Your task to perform on an android device: Search for razer deathadder on ebay.com, select the first entry, and add it to the cart. Image 0: 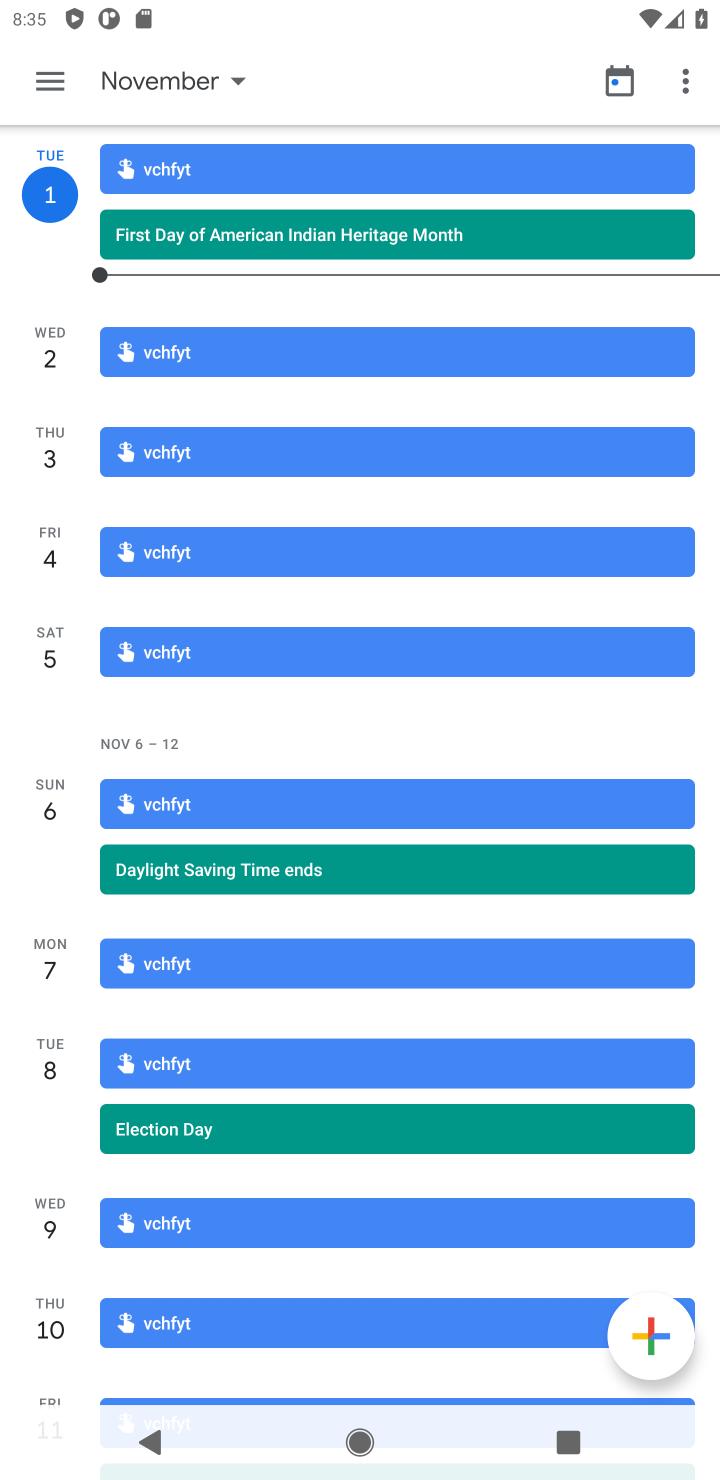
Step 0: press home button
Your task to perform on an android device: Search for razer deathadder on ebay.com, select the first entry, and add it to the cart. Image 1: 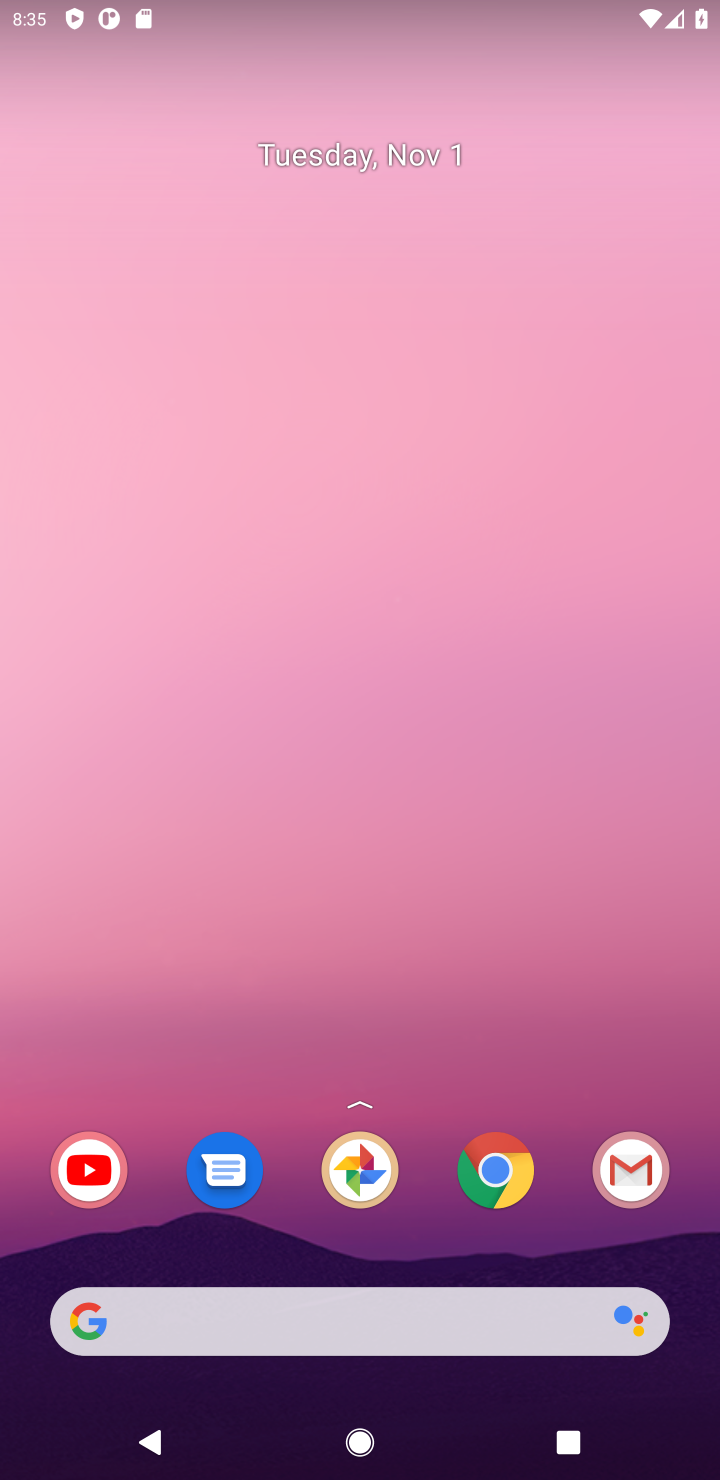
Step 1: click (483, 1183)
Your task to perform on an android device: Search for razer deathadder on ebay.com, select the first entry, and add it to the cart. Image 2: 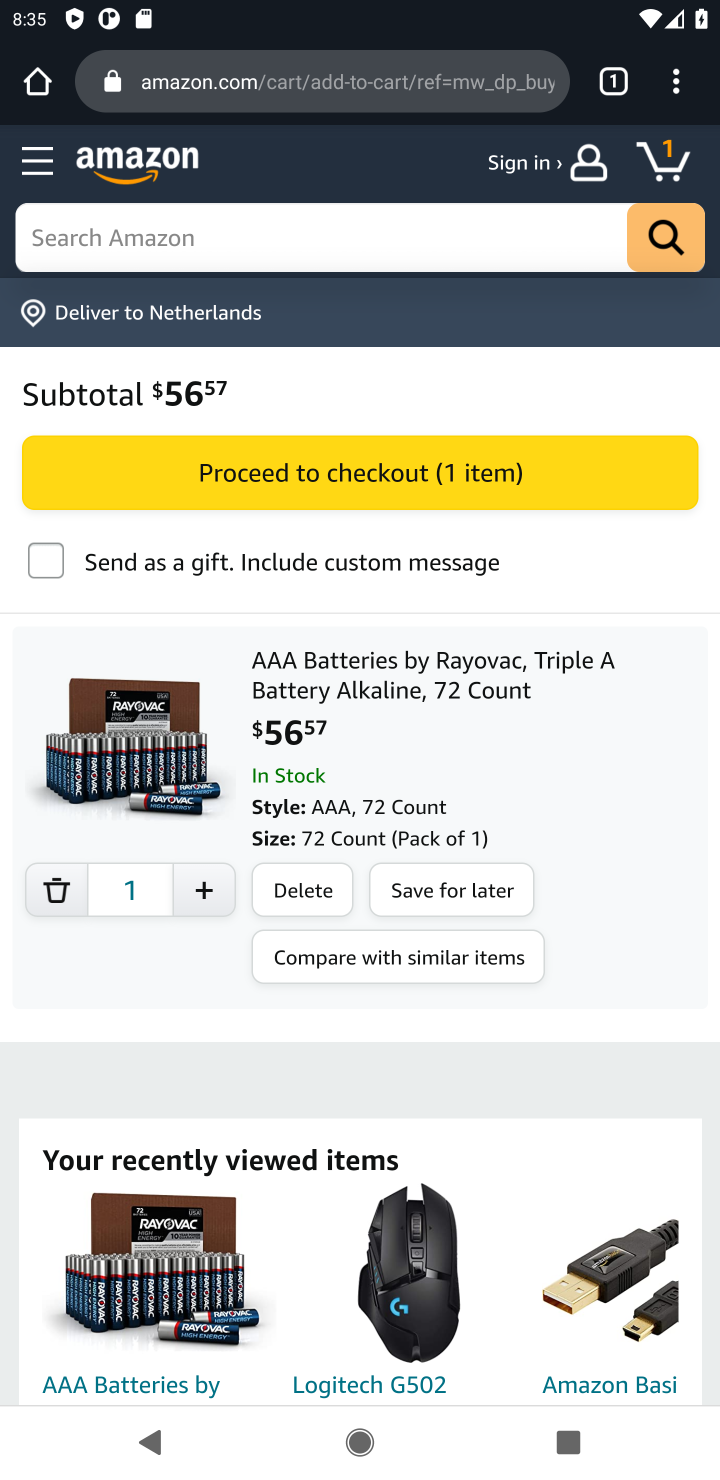
Step 2: click (342, 89)
Your task to perform on an android device: Search for razer deathadder on ebay.com, select the first entry, and add it to the cart. Image 3: 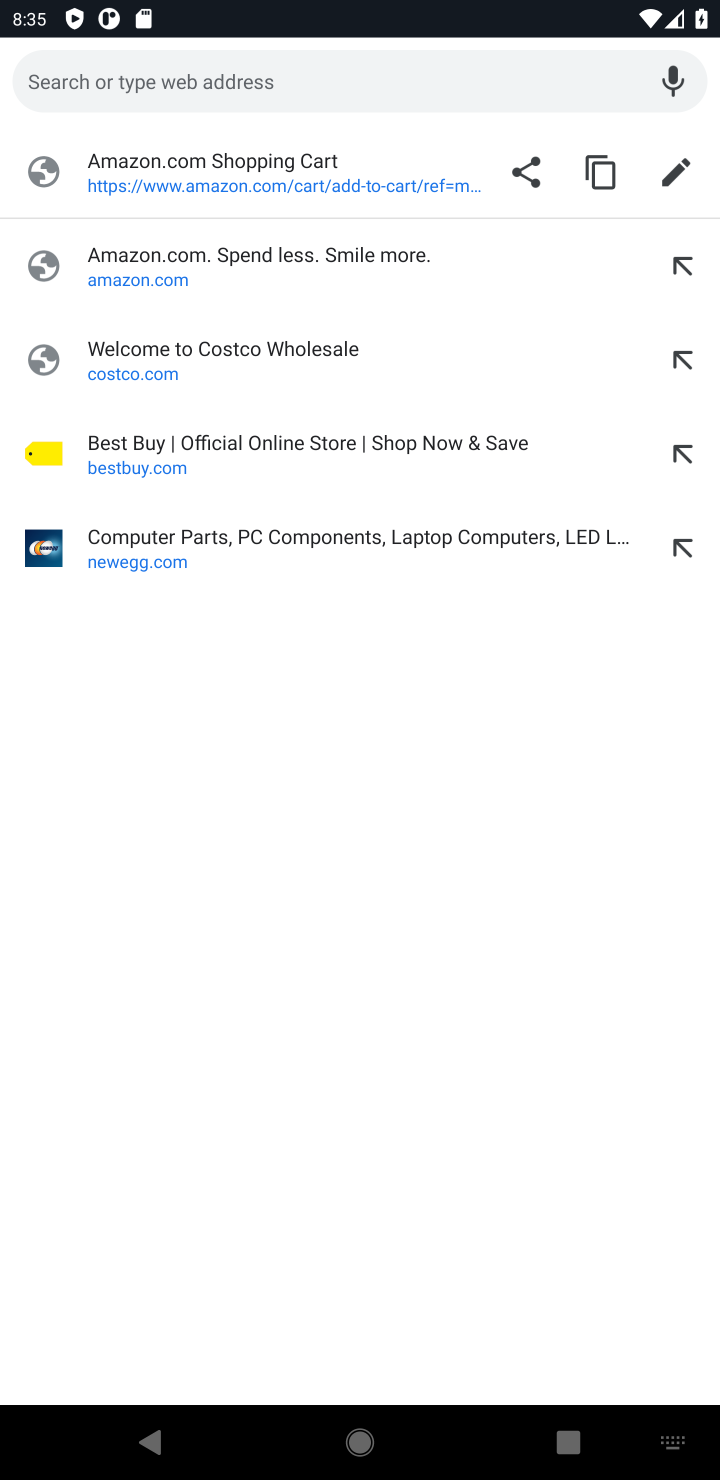
Step 3: type "ebay.com"
Your task to perform on an android device: Search for razer deathadder on ebay.com, select the first entry, and add it to the cart. Image 4: 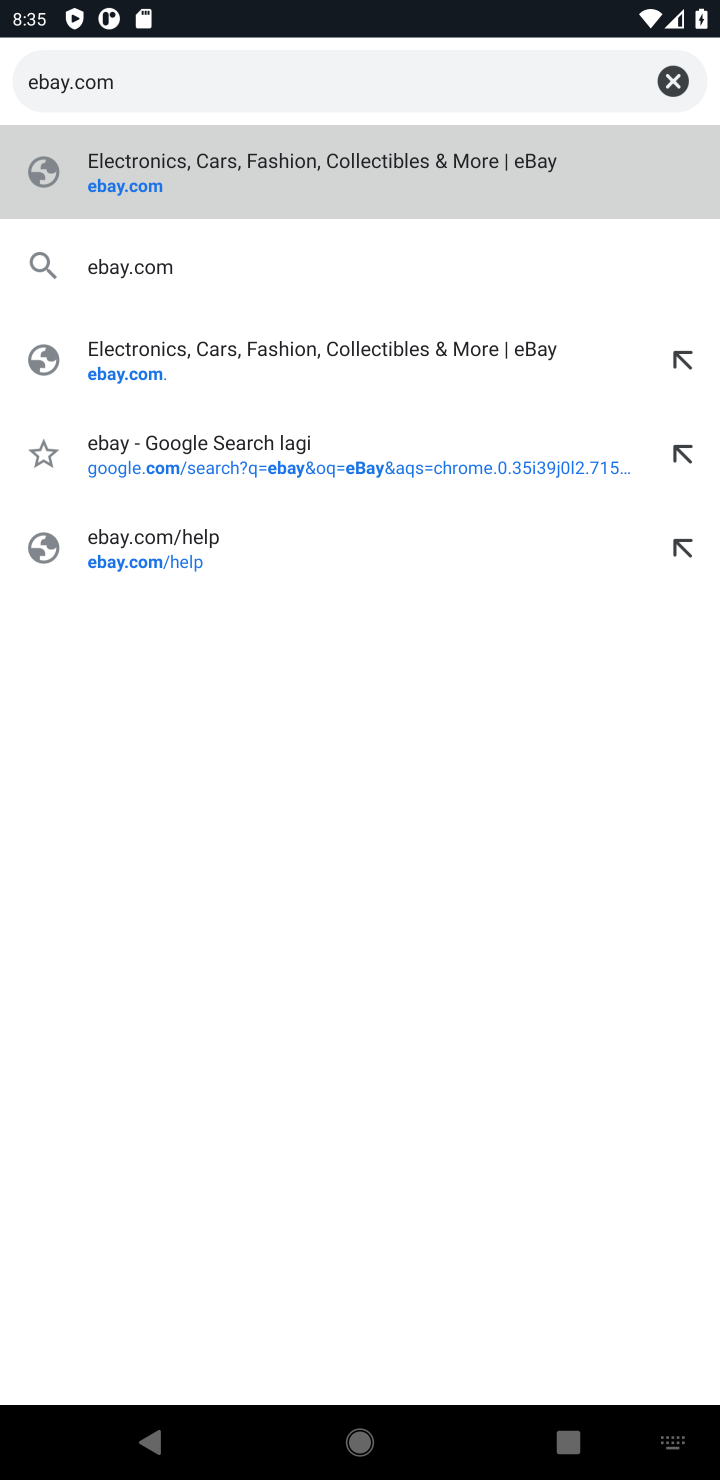
Step 4: type ""
Your task to perform on an android device: Search for razer deathadder on ebay.com, select the first entry, and add it to the cart. Image 5: 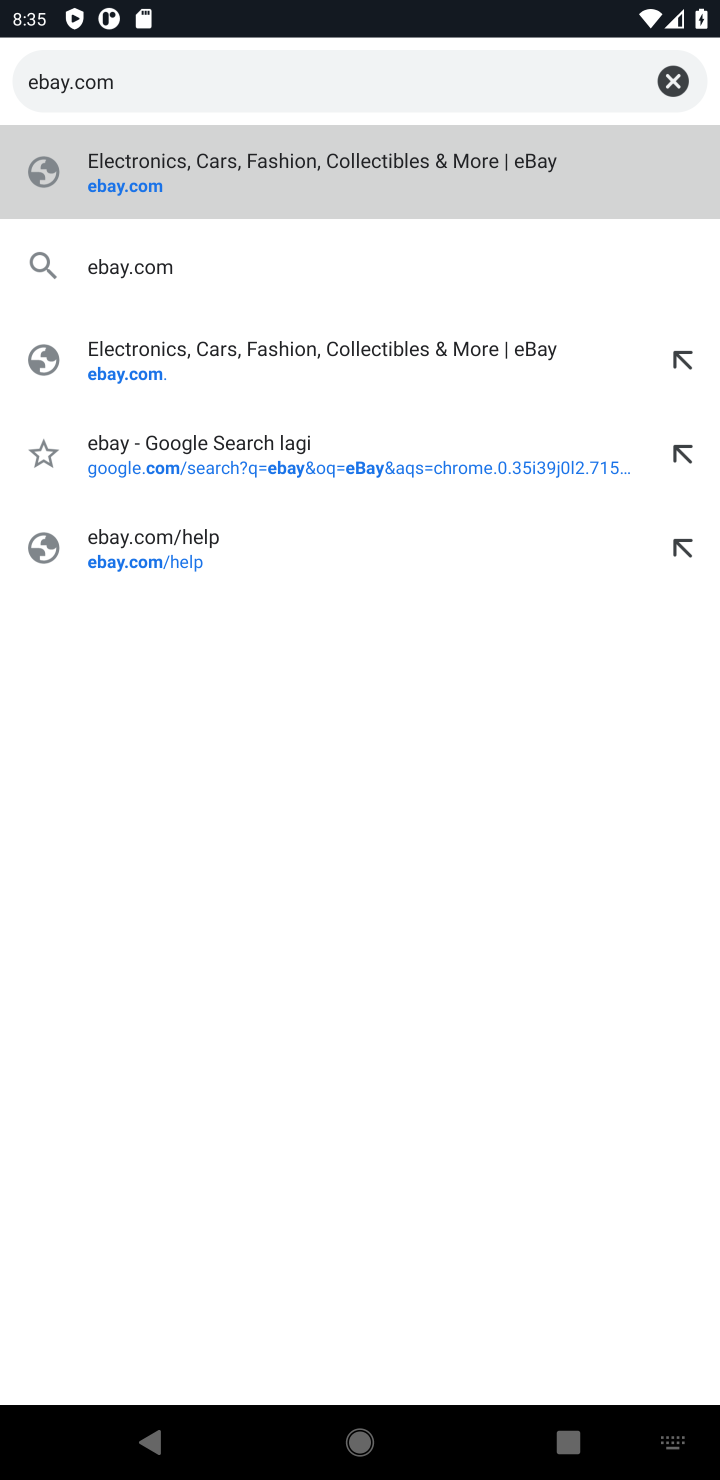
Step 5: press enter
Your task to perform on an android device: Search for razer deathadder on ebay.com, select the first entry, and add it to the cart. Image 6: 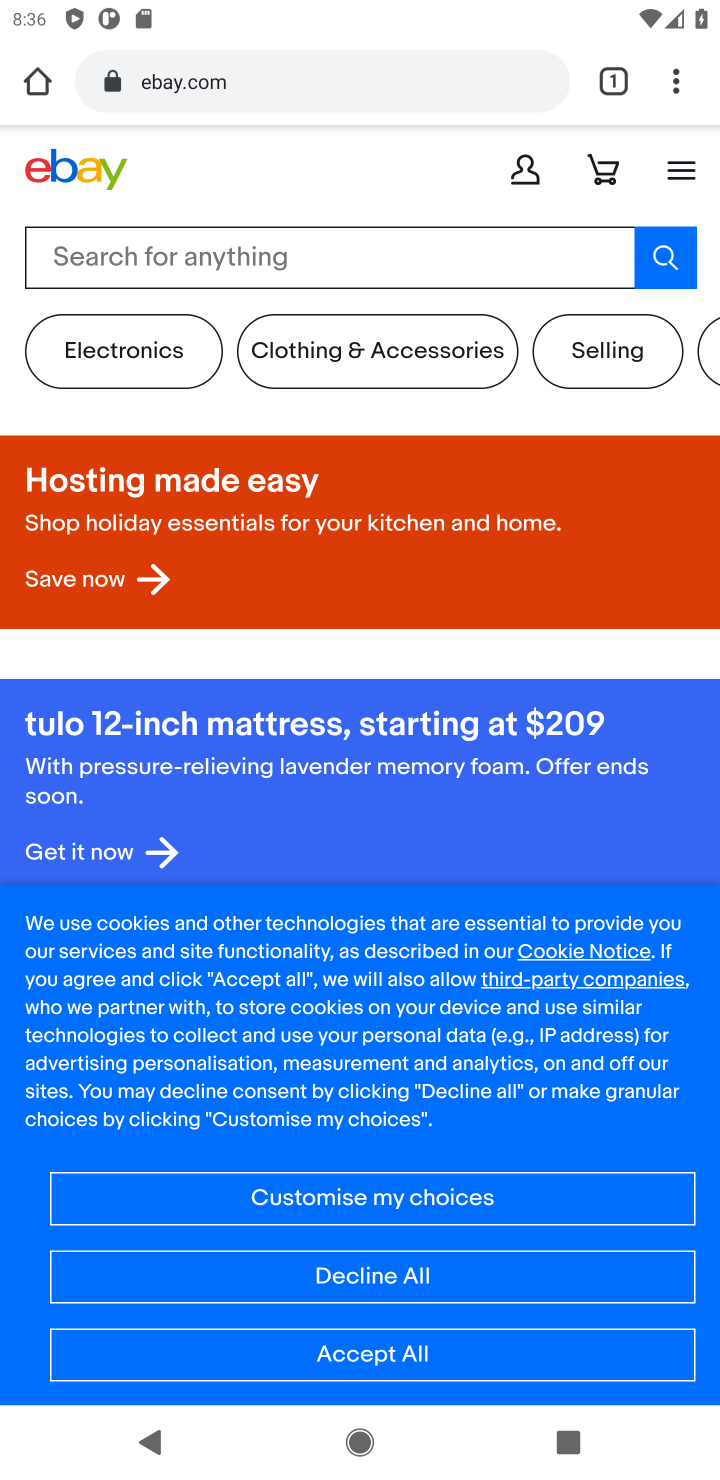
Step 6: click (445, 267)
Your task to perform on an android device: Search for razer deathadder on ebay.com, select the first entry, and add it to the cart. Image 7: 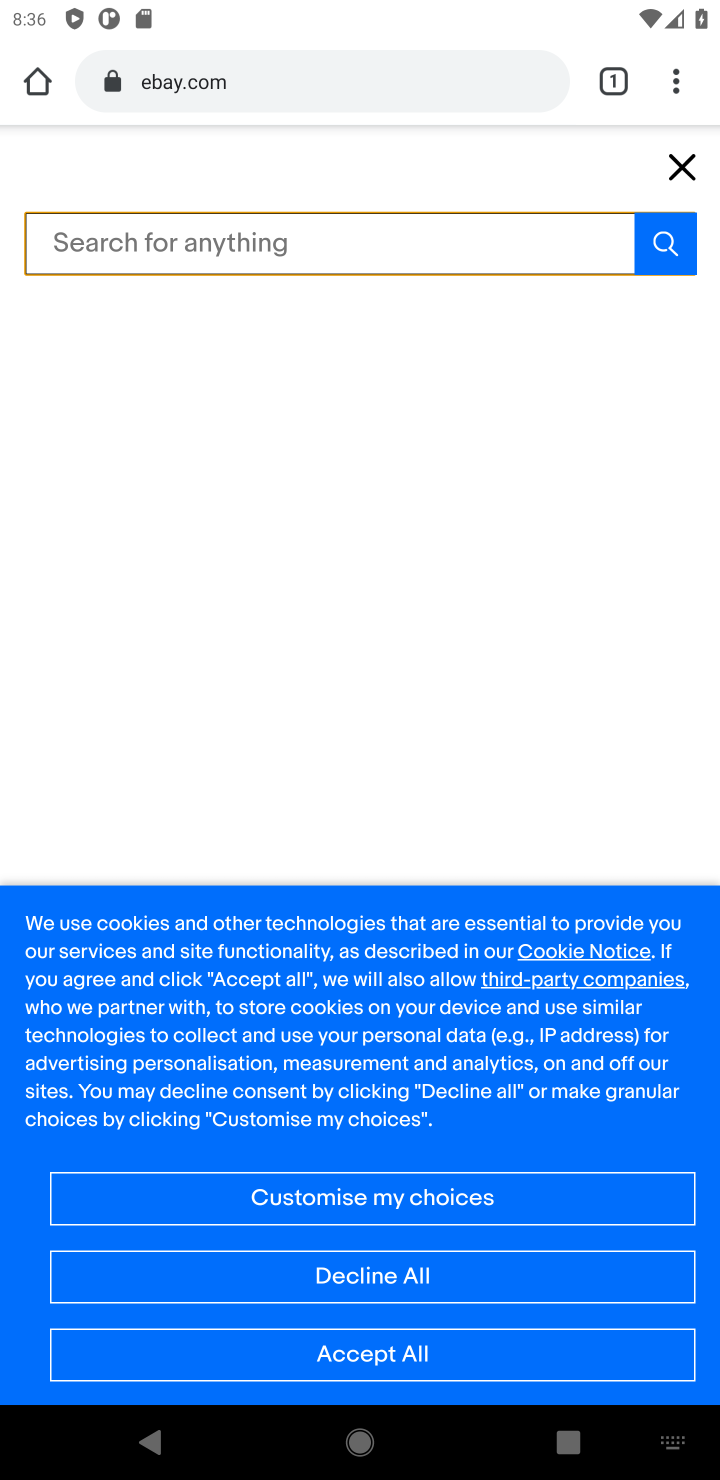
Step 7: type "razer deathadder"
Your task to perform on an android device: Search for razer deathadder on ebay.com, select the first entry, and add it to the cart. Image 8: 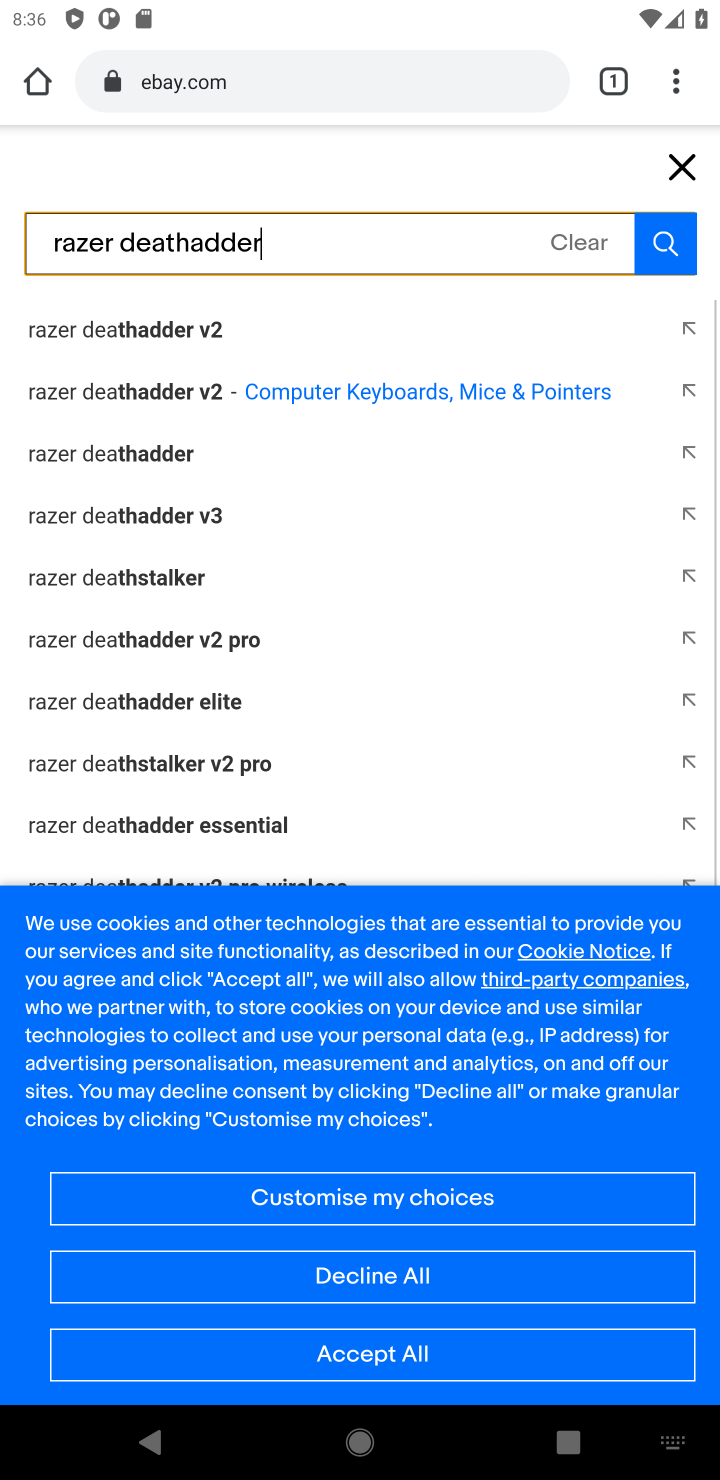
Step 8: type ""
Your task to perform on an android device: Search for razer deathadder on ebay.com, select the first entry, and add it to the cart. Image 9: 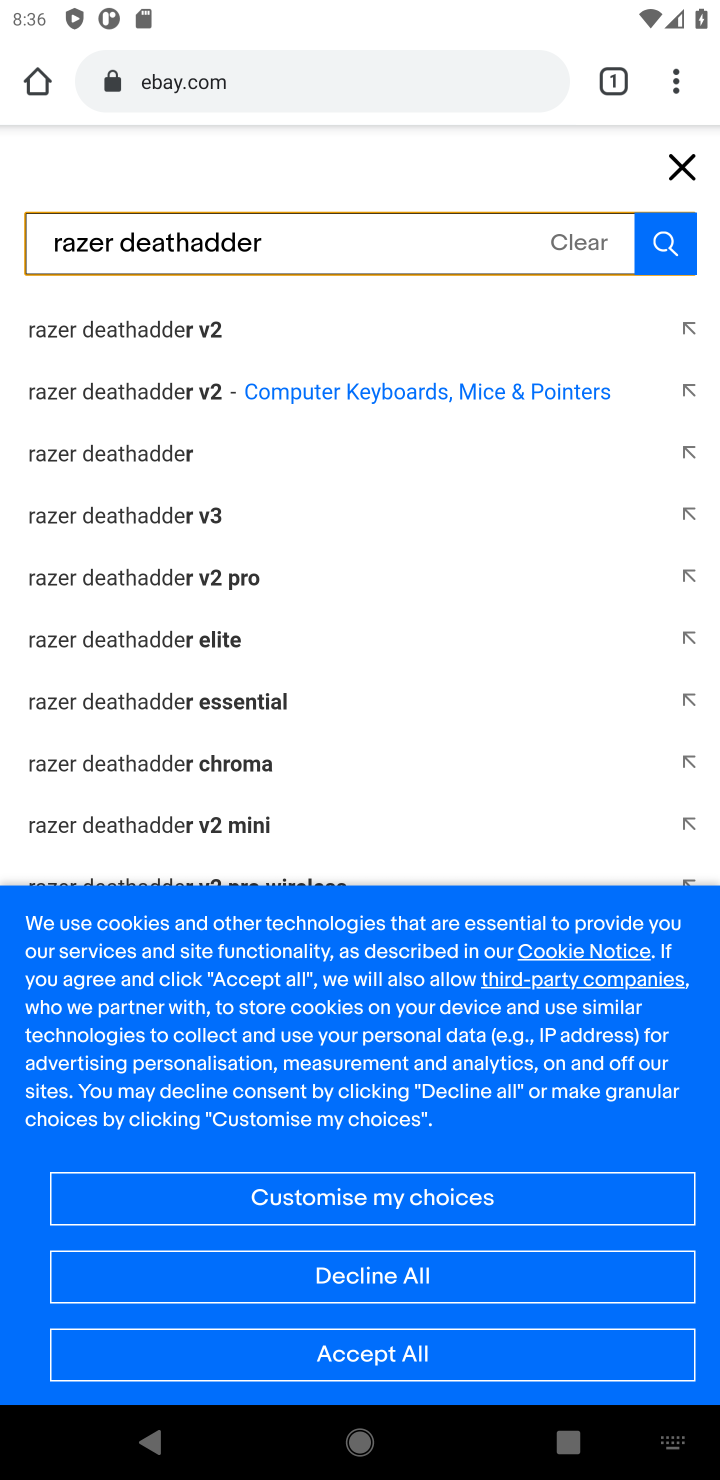
Step 9: press enter
Your task to perform on an android device: Search for razer deathadder on ebay.com, select the first entry, and add it to the cart. Image 10: 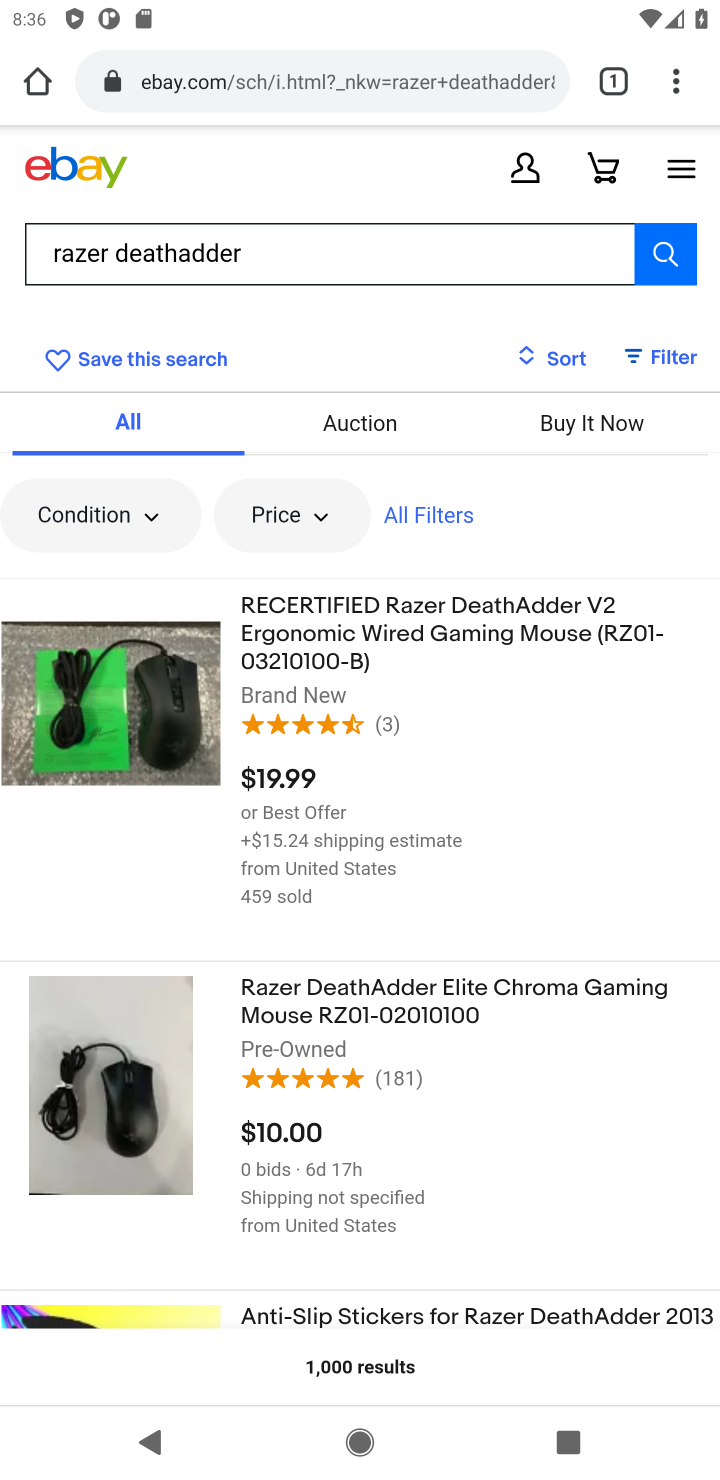
Step 10: click (424, 987)
Your task to perform on an android device: Search for razer deathadder on ebay.com, select the first entry, and add it to the cart. Image 11: 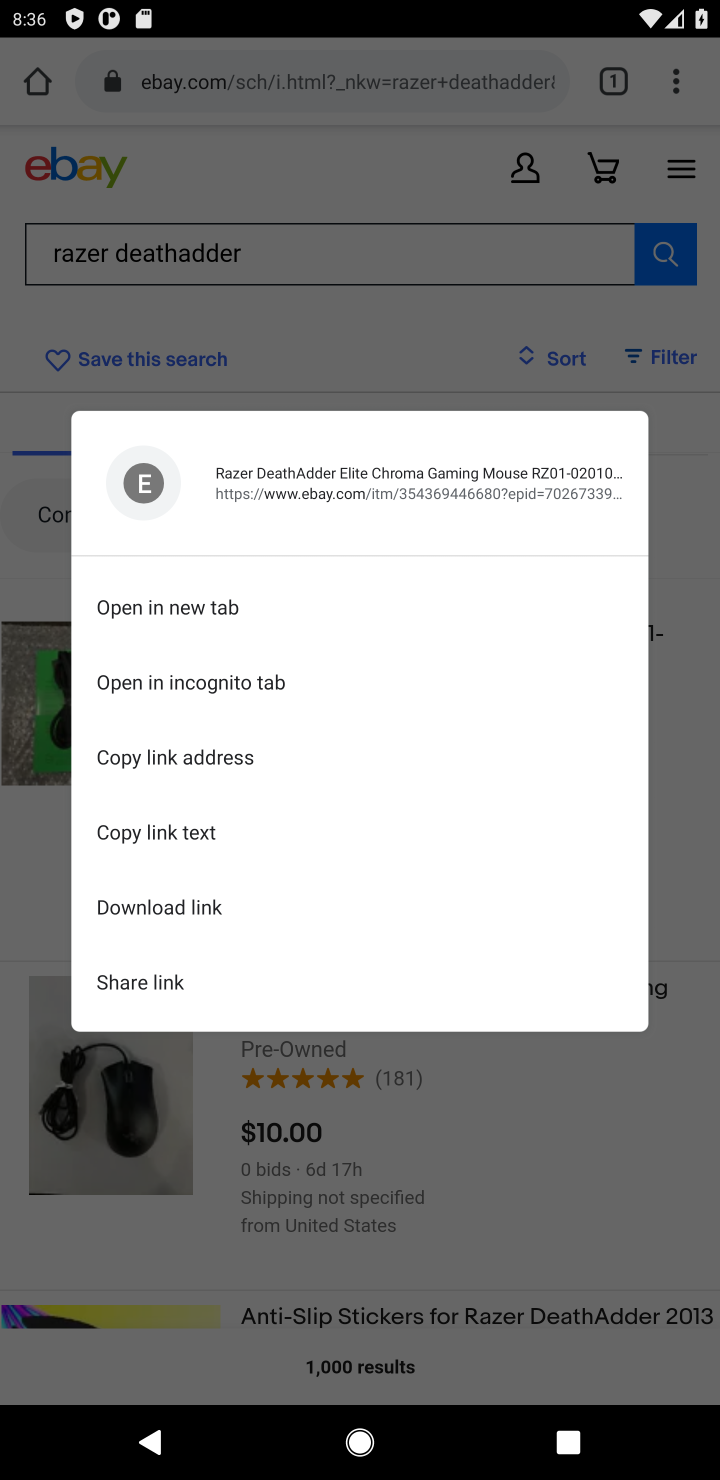
Step 11: click (654, 876)
Your task to perform on an android device: Search for razer deathadder on ebay.com, select the first entry, and add it to the cart. Image 12: 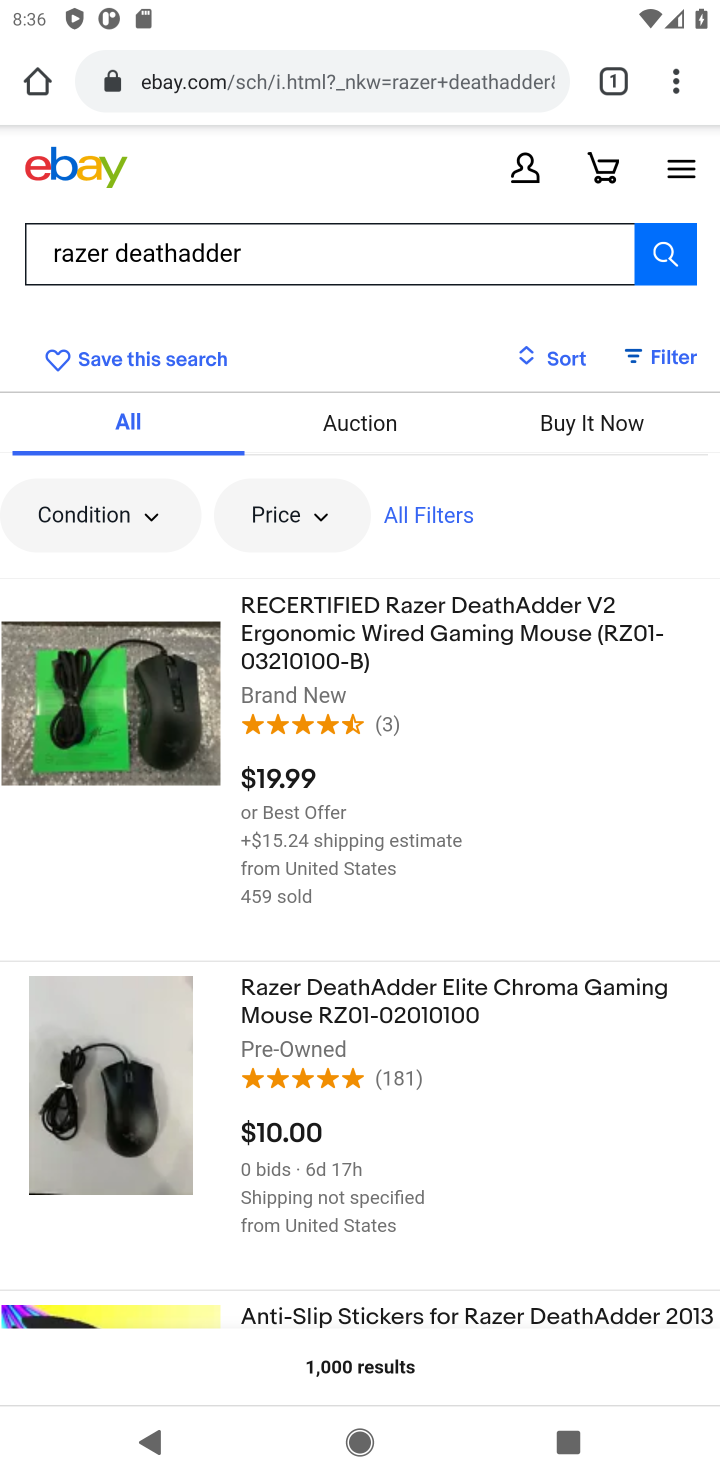
Step 12: click (392, 633)
Your task to perform on an android device: Search for razer deathadder on ebay.com, select the first entry, and add it to the cart. Image 13: 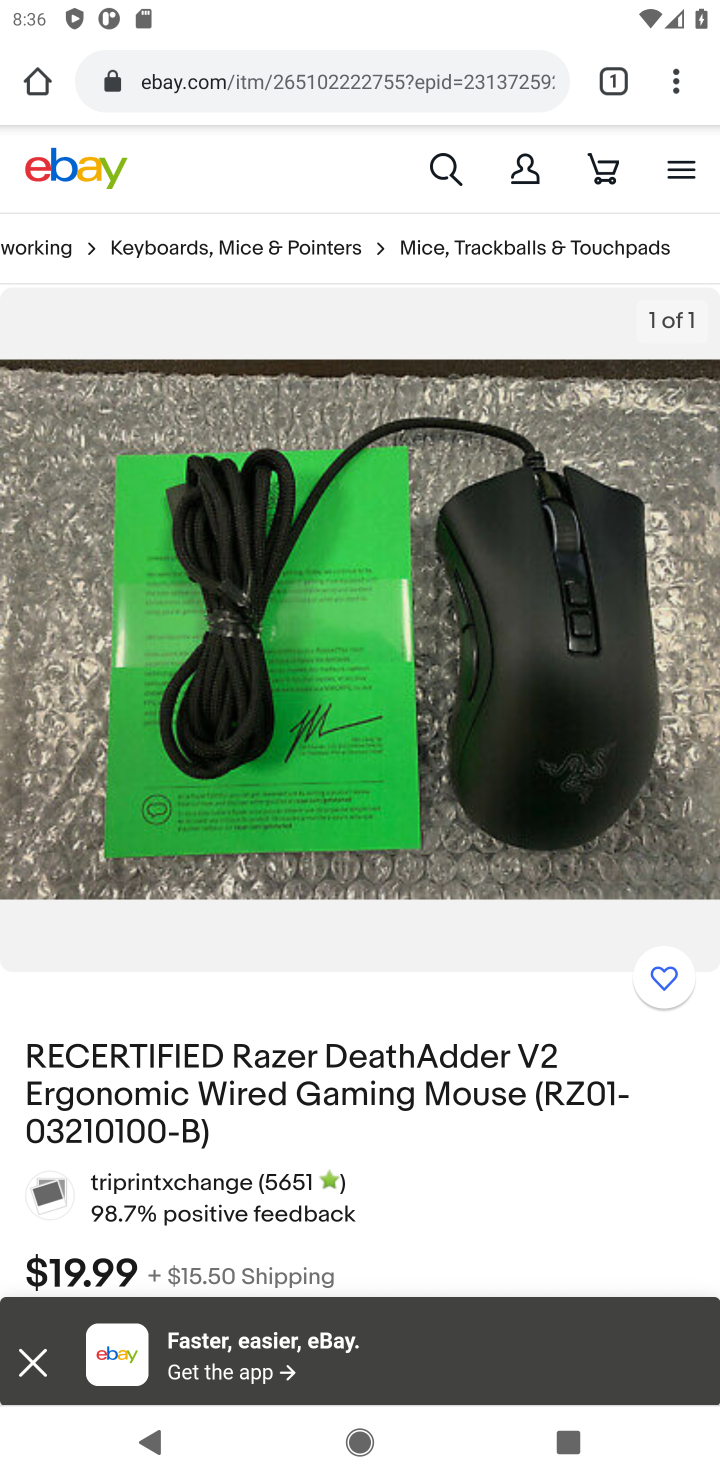
Step 13: drag from (431, 1034) to (340, 462)
Your task to perform on an android device: Search for razer deathadder on ebay.com, select the first entry, and add it to the cart. Image 14: 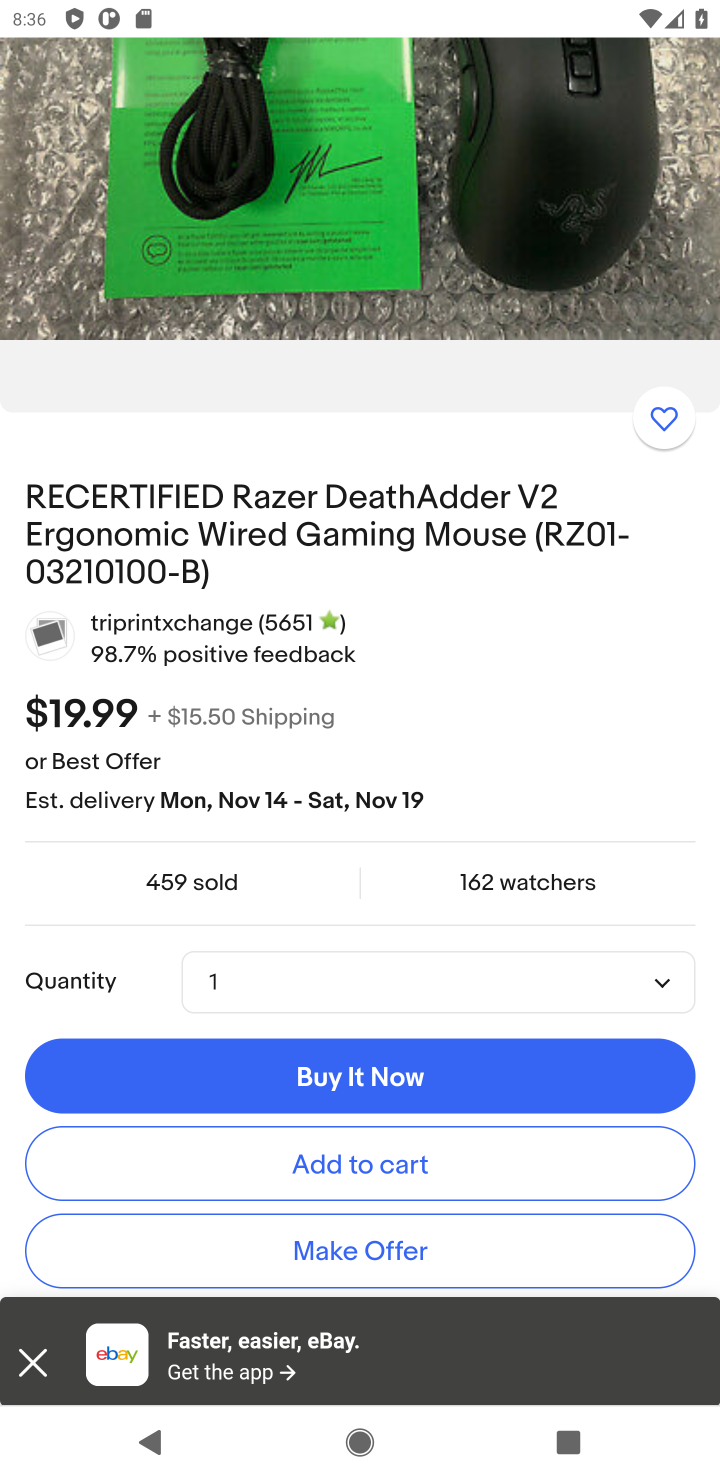
Step 14: click (471, 1162)
Your task to perform on an android device: Search for razer deathadder on ebay.com, select the first entry, and add it to the cart. Image 15: 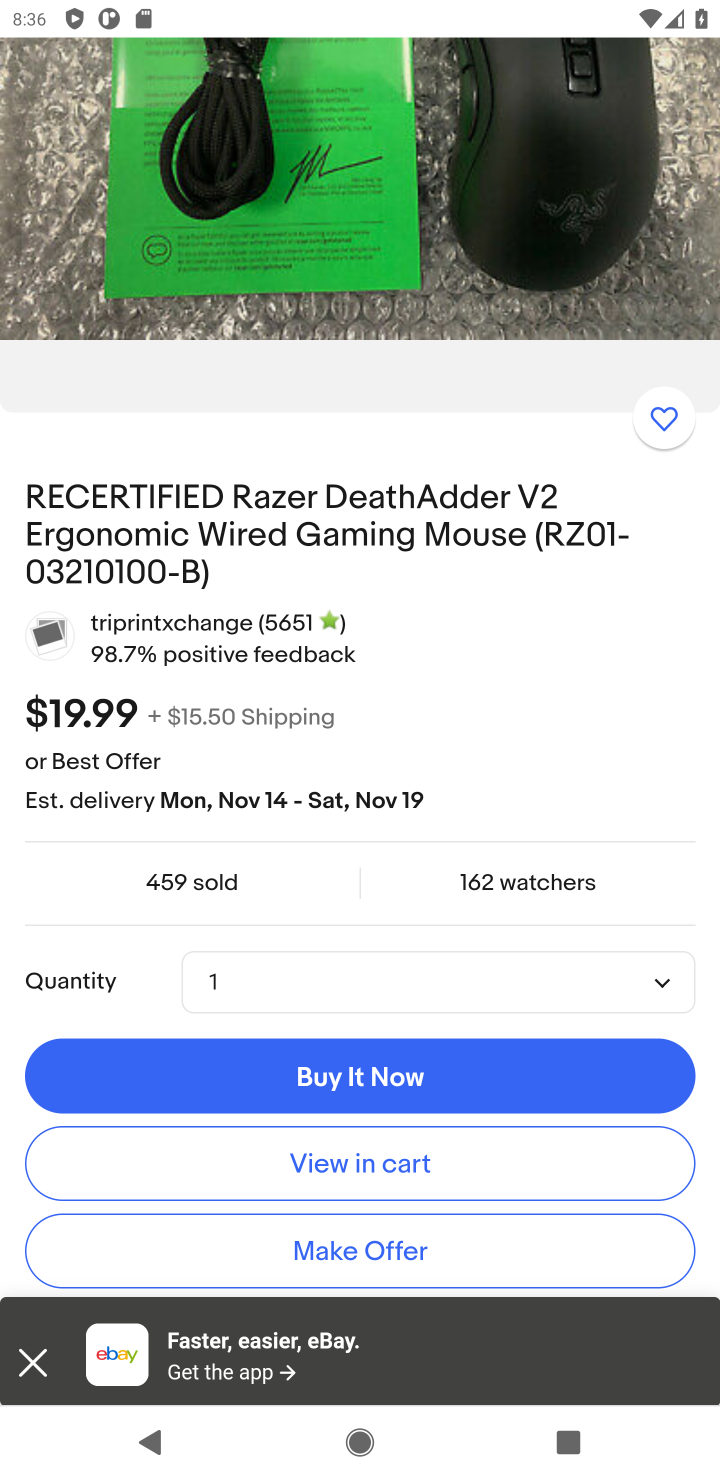
Step 15: task complete